Your task to perform on an android device: turn on sleep mode Image 0: 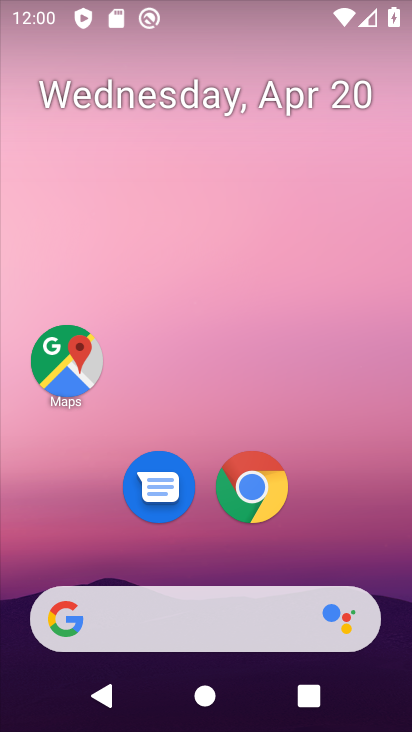
Step 0: drag from (387, 541) to (267, 48)
Your task to perform on an android device: turn on sleep mode Image 1: 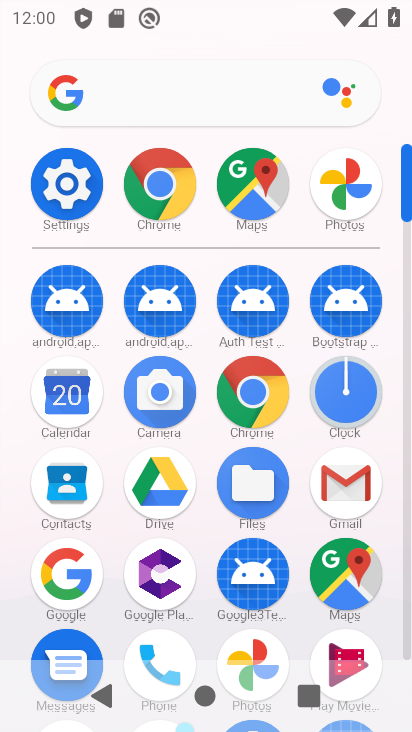
Step 1: click (62, 198)
Your task to perform on an android device: turn on sleep mode Image 2: 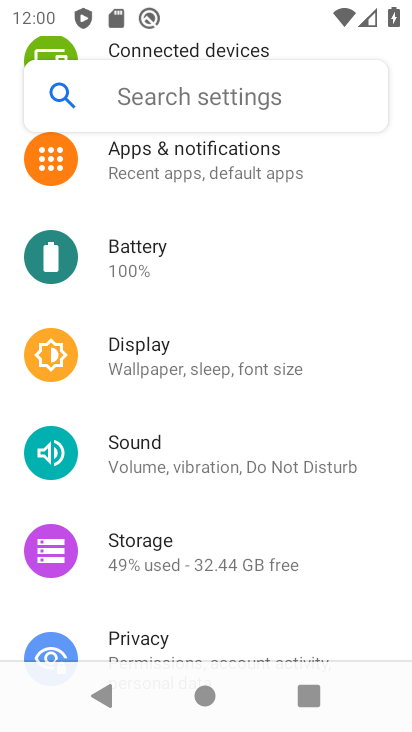
Step 2: task complete